Your task to perform on an android device: toggle javascript in the chrome app Image 0: 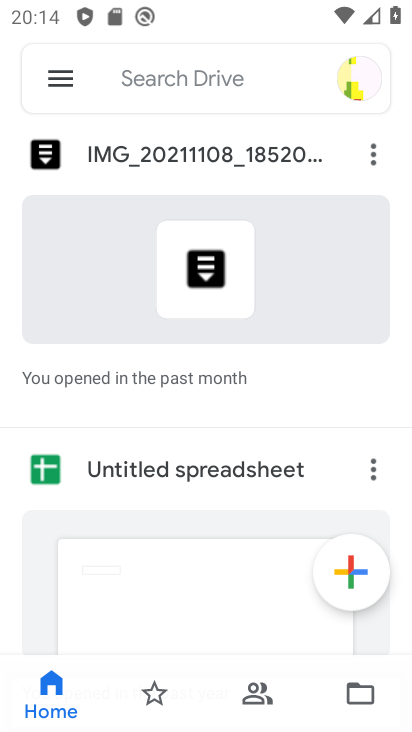
Step 0: click (395, 303)
Your task to perform on an android device: toggle javascript in the chrome app Image 1: 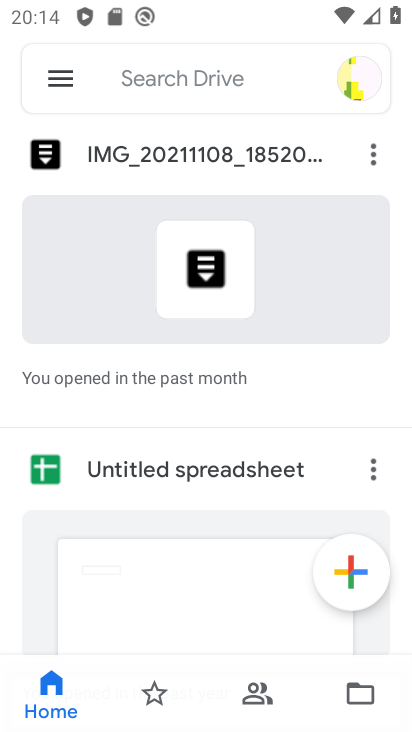
Step 1: press home button
Your task to perform on an android device: toggle javascript in the chrome app Image 2: 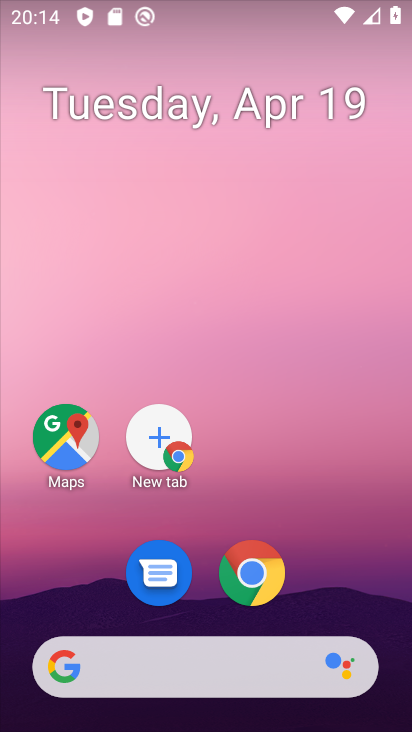
Step 2: click (255, 564)
Your task to perform on an android device: toggle javascript in the chrome app Image 3: 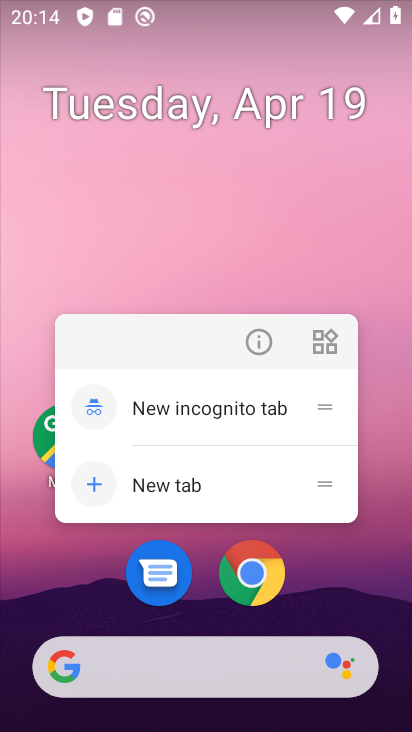
Step 3: click (255, 564)
Your task to perform on an android device: toggle javascript in the chrome app Image 4: 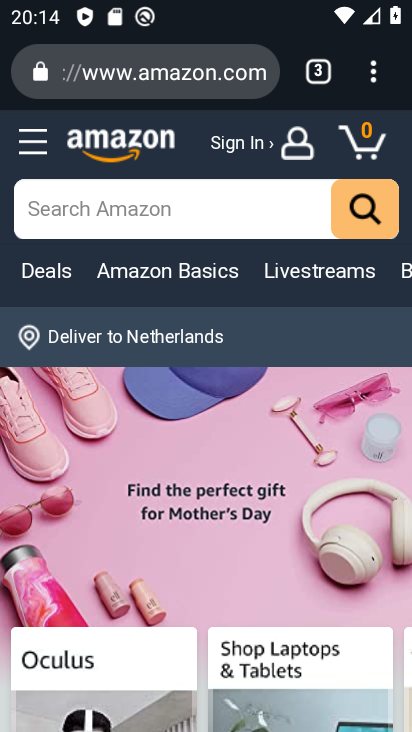
Step 4: click (374, 69)
Your task to perform on an android device: toggle javascript in the chrome app Image 5: 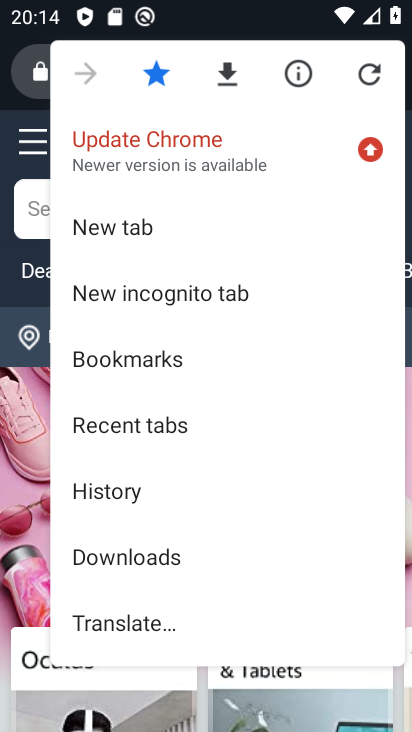
Step 5: drag from (268, 607) to (323, 246)
Your task to perform on an android device: toggle javascript in the chrome app Image 6: 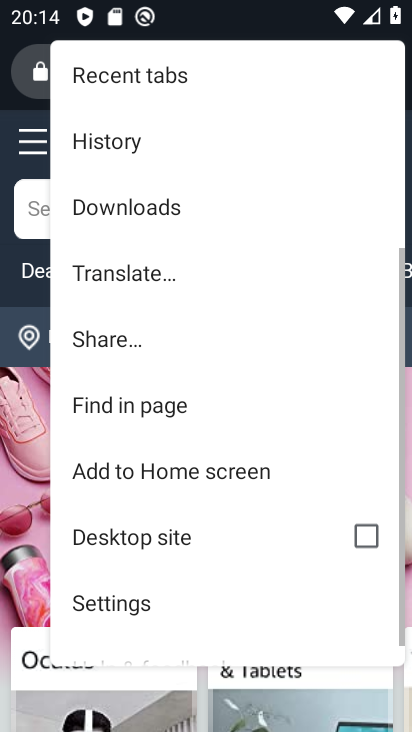
Step 6: click (118, 601)
Your task to perform on an android device: toggle javascript in the chrome app Image 7: 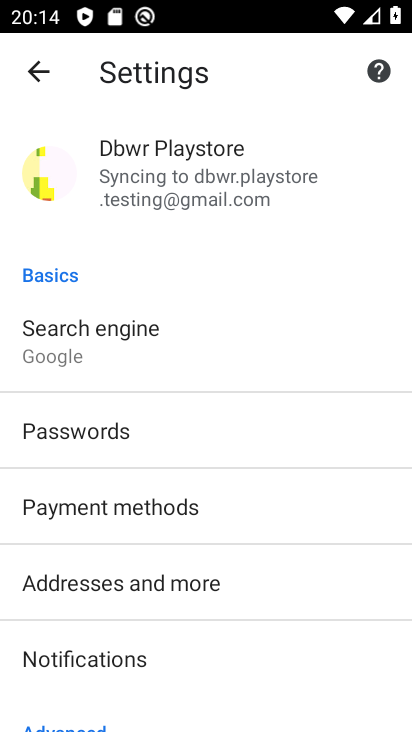
Step 7: drag from (276, 519) to (287, 277)
Your task to perform on an android device: toggle javascript in the chrome app Image 8: 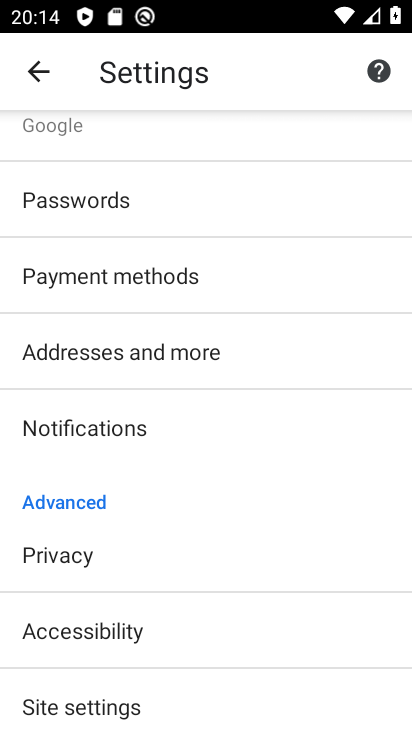
Step 8: click (100, 699)
Your task to perform on an android device: toggle javascript in the chrome app Image 9: 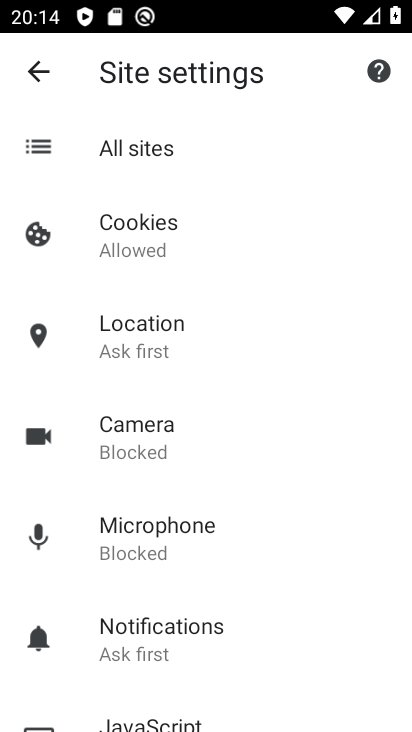
Step 9: drag from (284, 600) to (293, 262)
Your task to perform on an android device: toggle javascript in the chrome app Image 10: 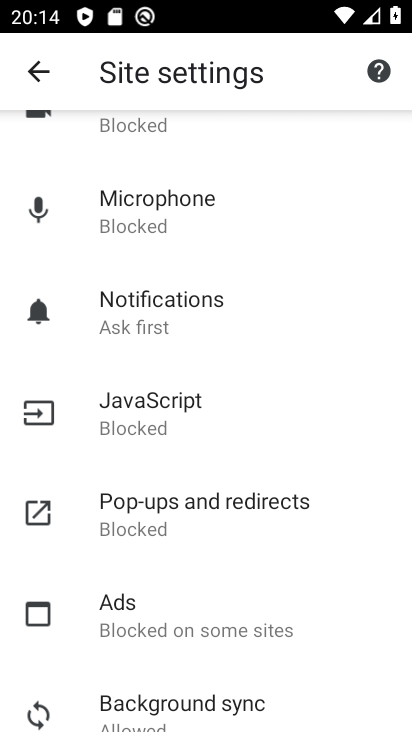
Step 10: click (132, 417)
Your task to perform on an android device: toggle javascript in the chrome app Image 11: 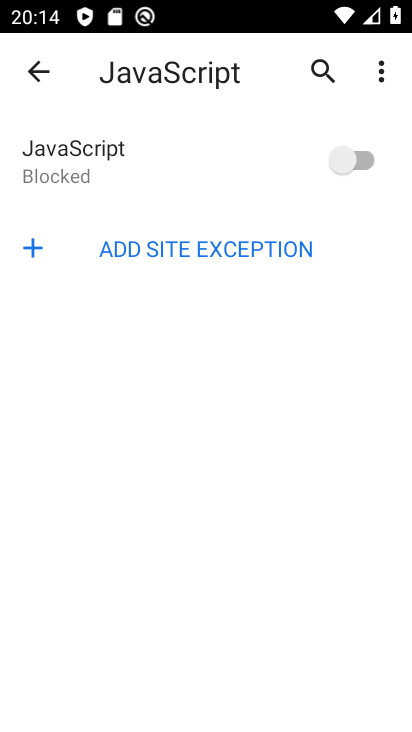
Step 11: click (362, 158)
Your task to perform on an android device: toggle javascript in the chrome app Image 12: 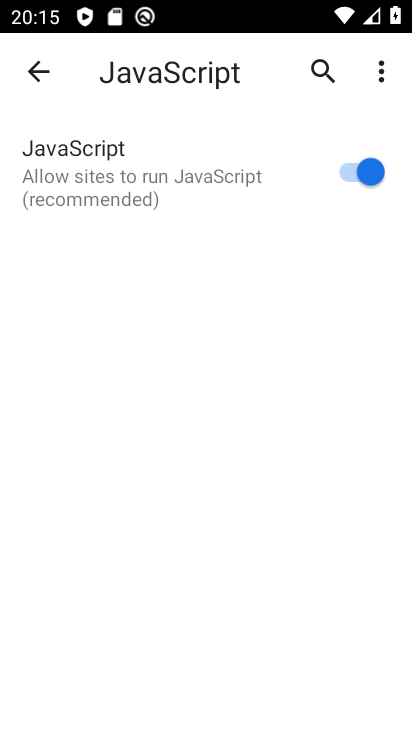
Step 12: task complete